Your task to perform on an android device: turn on showing notifications on the lock screen Image 0: 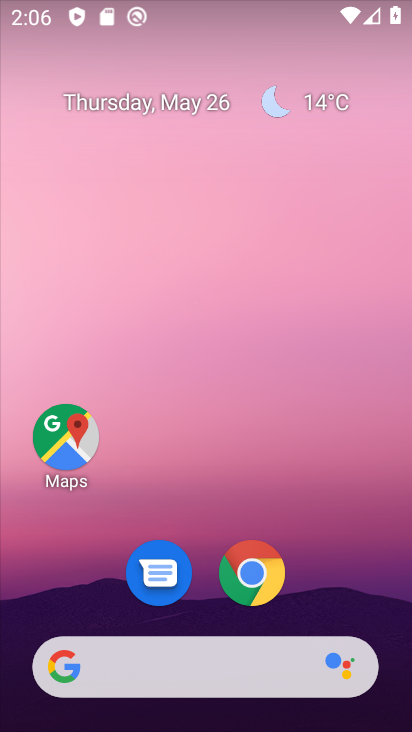
Step 0: drag from (342, 502) to (209, 41)
Your task to perform on an android device: turn on showing notifications on the lock screen Image 1: 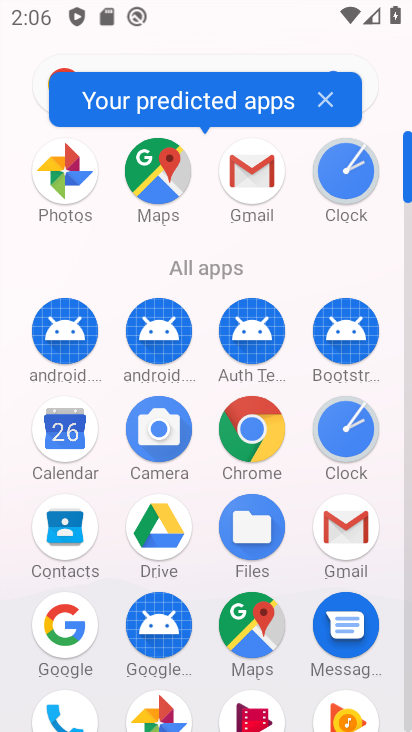
Step 1: drag from (9, 585) to (10, 268)
Your task to perform on an android device: turn on showing notifications on the lock screen Image 2: 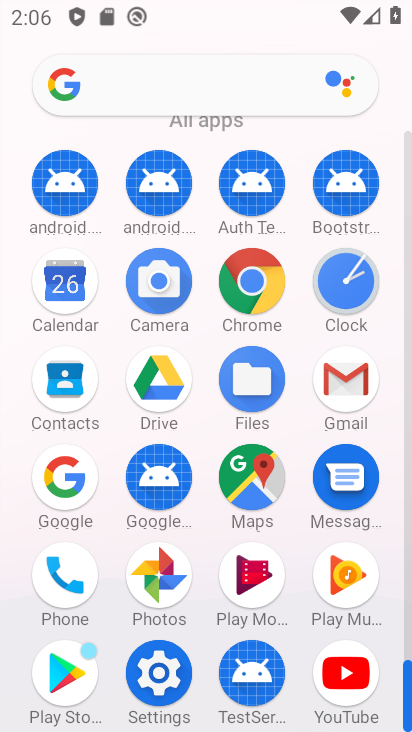
Step 2: click (162, 671)
Your task to perform on an android device: turn on showing notifications on the lock screen Image 3: 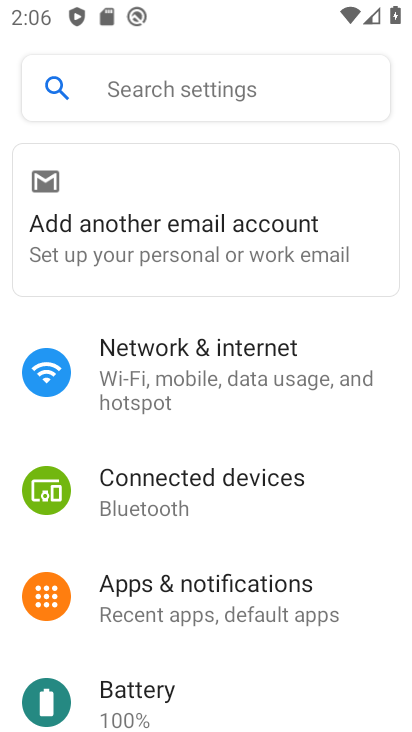
Step 3: drag from (338, 536) to (304, 236)
Your task to perform on an android device: turn on showing notifications on the lock screen Image 4: 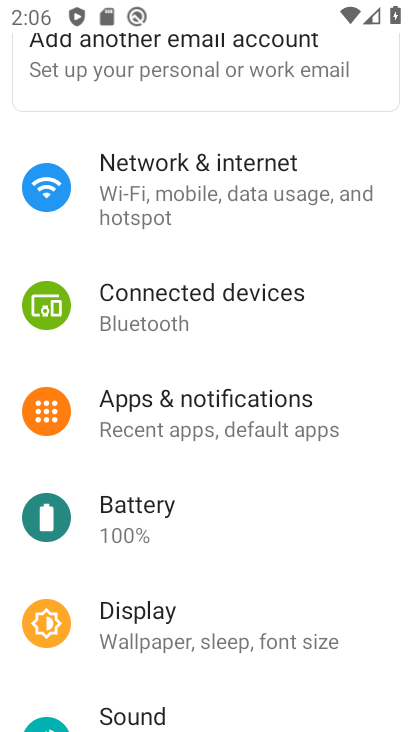
Step 4: click (252, 417)
Your task to perform on an android device: turn on showing notifications on the lock screen Image 5: 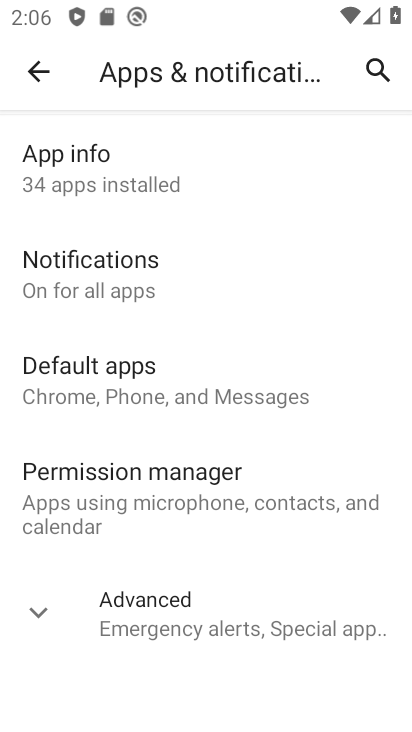
Step 5: click (27, 588)
Your task to perform on an android device: turn on showing notifications on the lock screen Image 6: 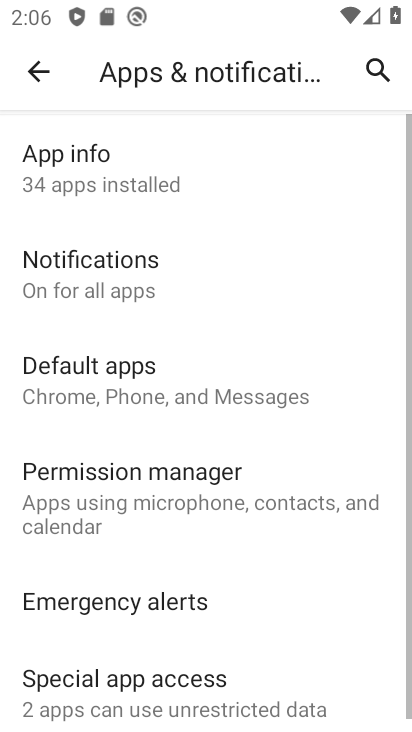
Step 6: drag from (211, 539) to (248, 185)
Your task to perform on an android device: turn on showing notifications on the lock screen Image 7: 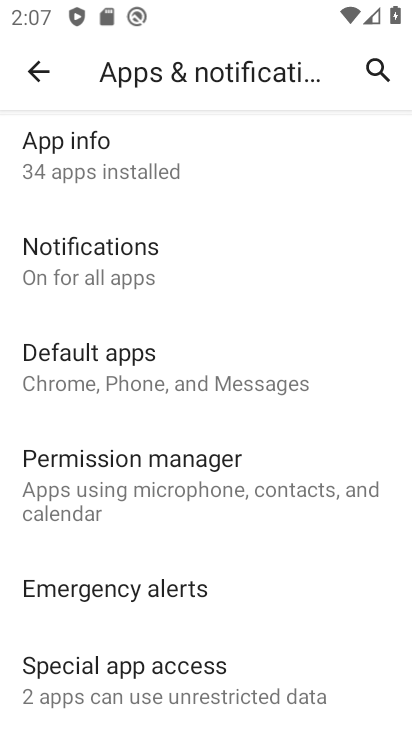
Step 7: drag from (289, 564) to (279, 214)
Your task to perform on an android device: turn on showing notifications on the lock screen Image 8: 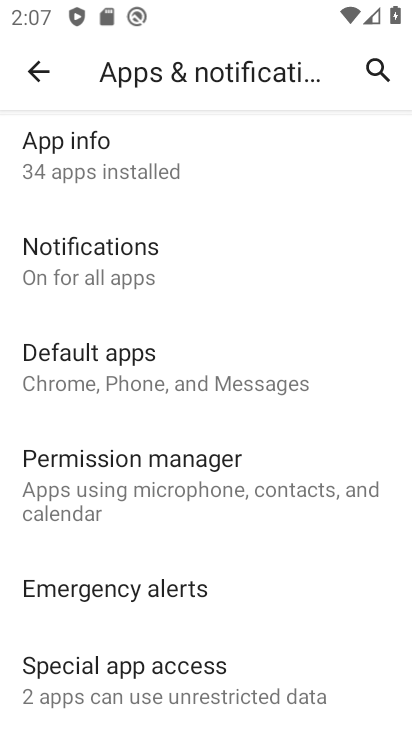
Step 8: drag from (288, 582) to (248, 180)
Your task to perform on an android device: turn on showing notifications on the lock screen Image 9: 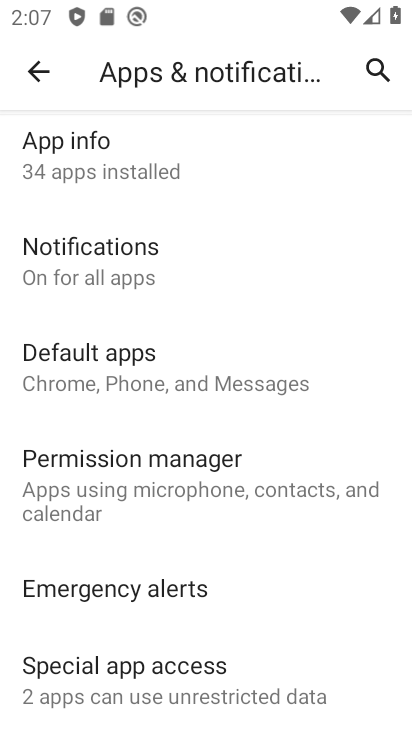
Step 9: drag from (193, 628) to (210, 317)
Your task to perform on an android device: turn on showing notifications on the lock screen Image 10: 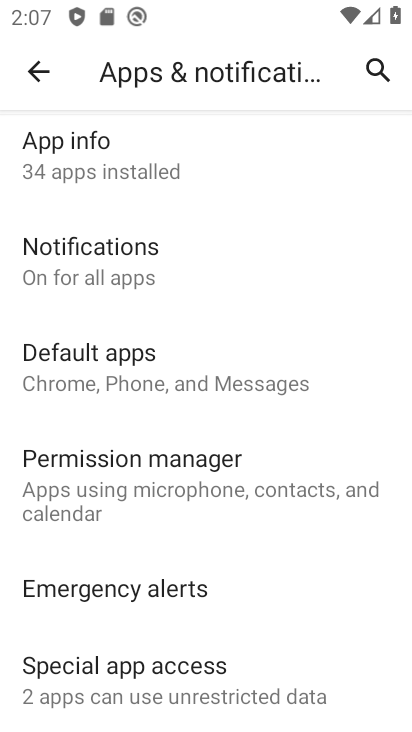
Step 10: drag from (267, 577) to (280, 214)
Your task to perform on an android device: turn on showing notifications on the lock screen Image 11: 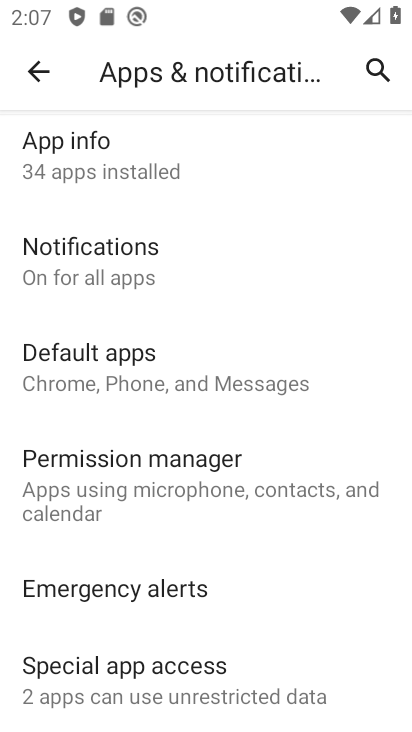
Step 11: drag from (213, 199) to (211, 616)
Your task to perform on an android device: turn on showing notifications on the lock screen Image 12: 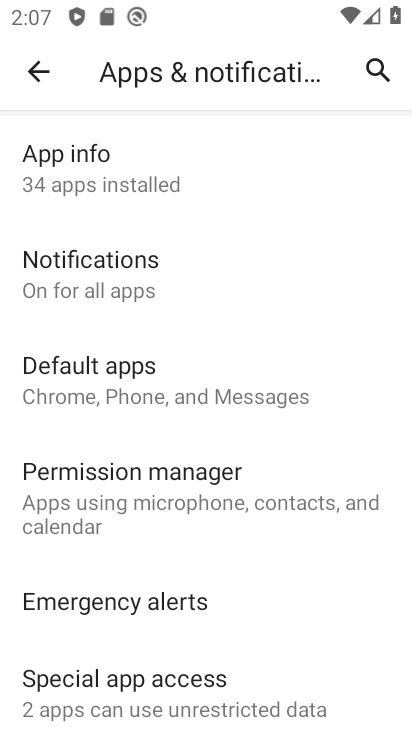
Step 12: click (137, 272)
Your task to perform on an android device: turn on showing notifications on the lock screen Image 13: 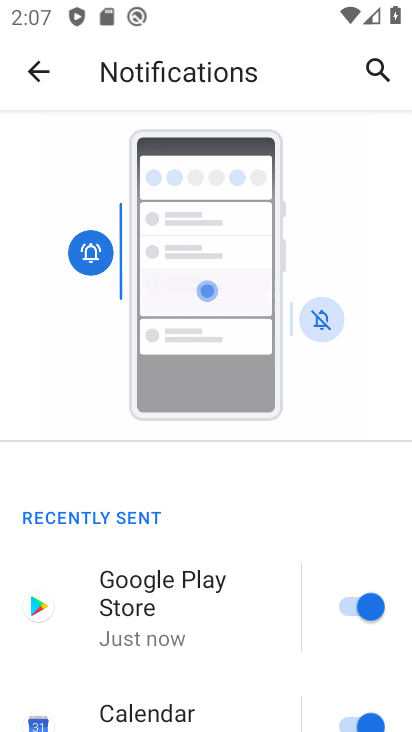
Step 13: drag from (172, 584) to (152, 152)
Your task to perform on an android device: turn on showing notifications on the lock screen Image 14: 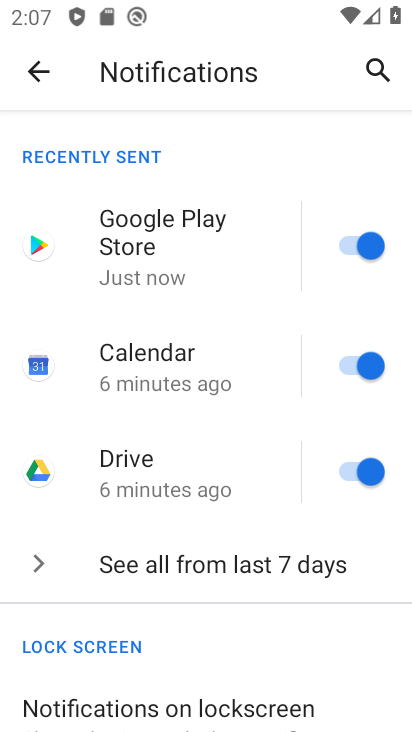
Step 14: drag from (208, 519) to (207, 195)
Your task to perform on an android device: turn on showing notifications on the lock screen Image 15: 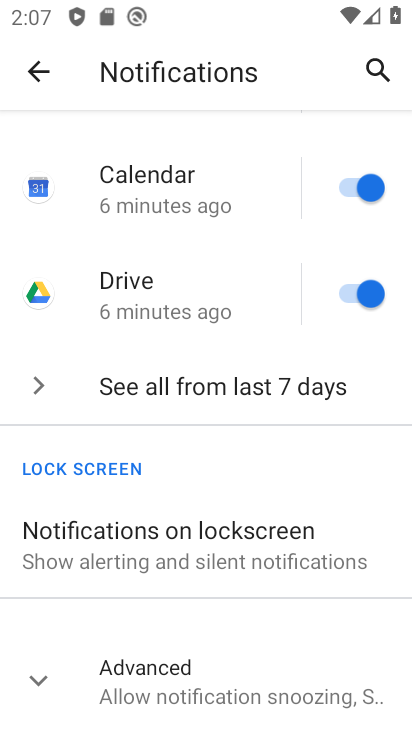
Step 15: click (184, 555)
Your task to perform on an android device: turn on showing notifications on the lock screen Image 16: 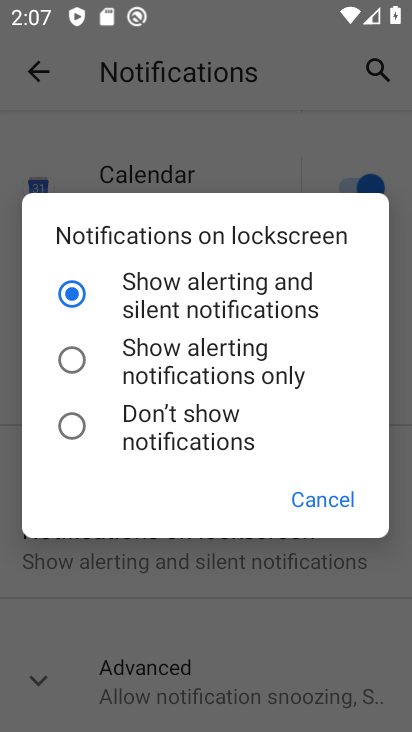
Step 16: click (200, 309)
Your task to perform on an android device: turn on showing notifications on the lock screen Image 17: 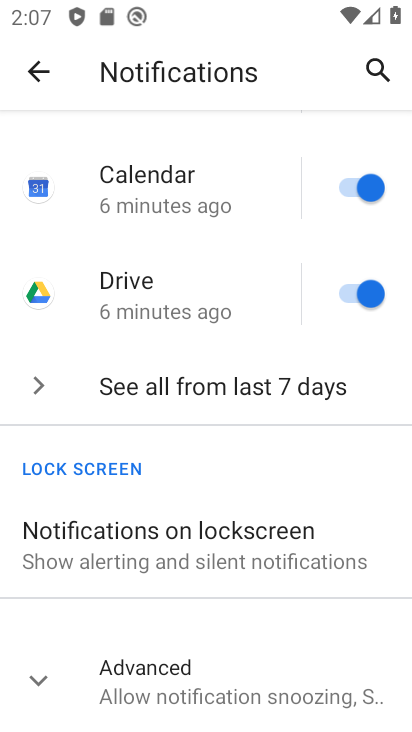
Step 17: click (62, 657)
Your task to perform on an android device: turn on showing notifications on the lock screen Image 18: 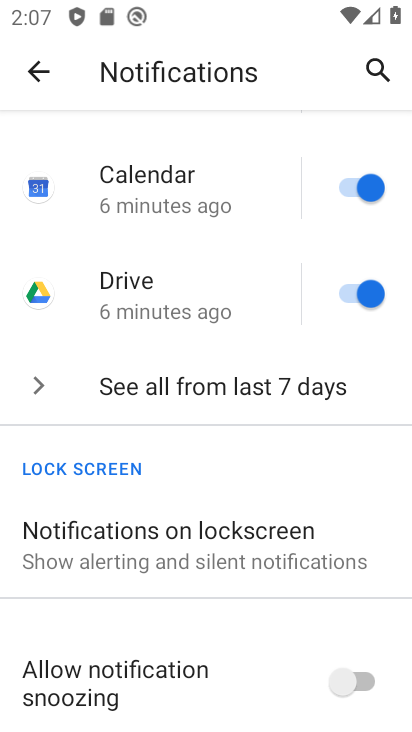
Step 18: task complete